Your task to perform on an android device: Go to accessibility settings Image 0: 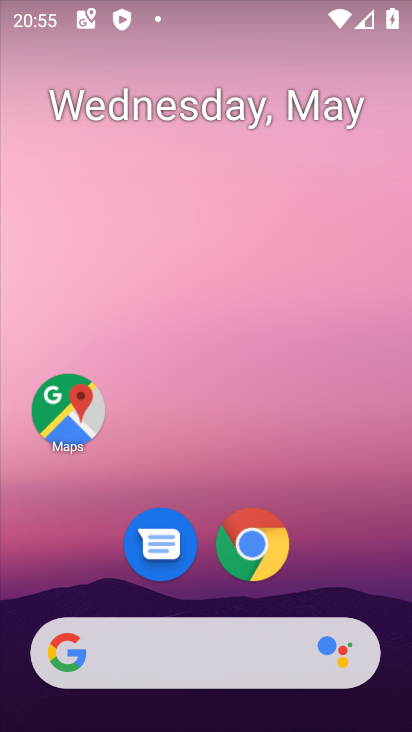
Step 0: drag from (206, 587) to (253, 20)
Your task to perform on an android device: Go to accessibility settings Image 1: 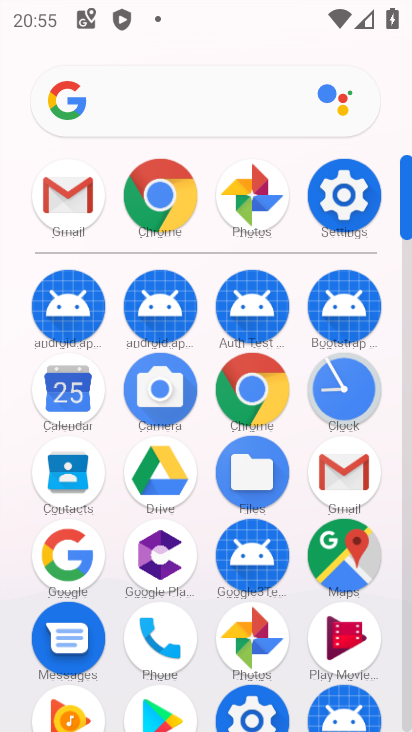
Step 1: click (333, 198)
Your task to perform on an android device: Go to accessibility settings Image 2: 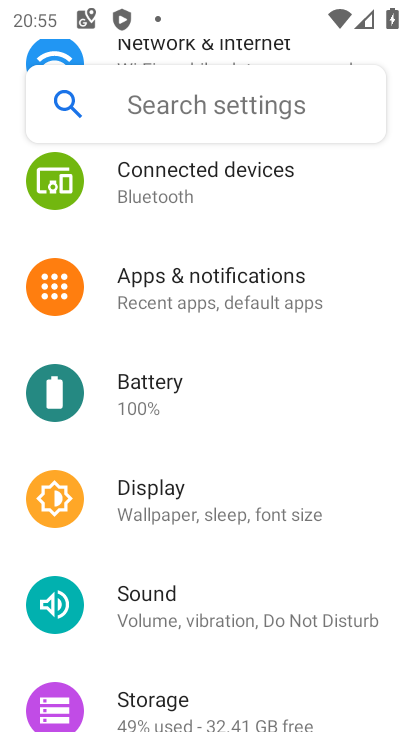
Step 2: drag from (120, 654) to (328, 170)
Your task to perform on an android device: Go to accessibility settings Image 3: 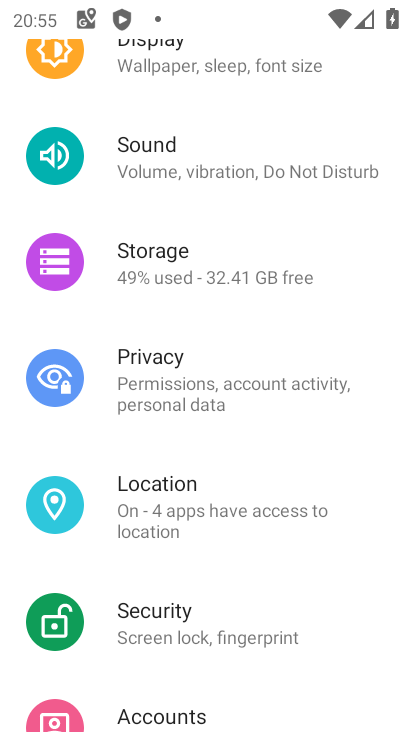
Step 3: drag from (122, 666) to (318, 143)
Your task to perform on an android device: Go to accessibility settings Image 4: 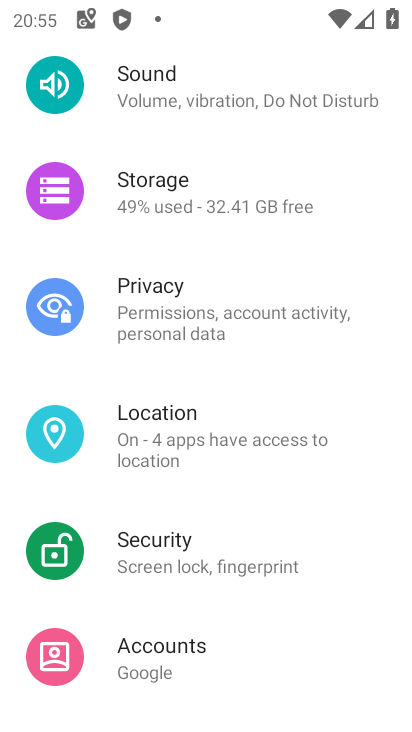
Step 4: drag from (94, 628) to (233, 172)
Your task to perform on an android device: Go to accessibility settings Image 5: 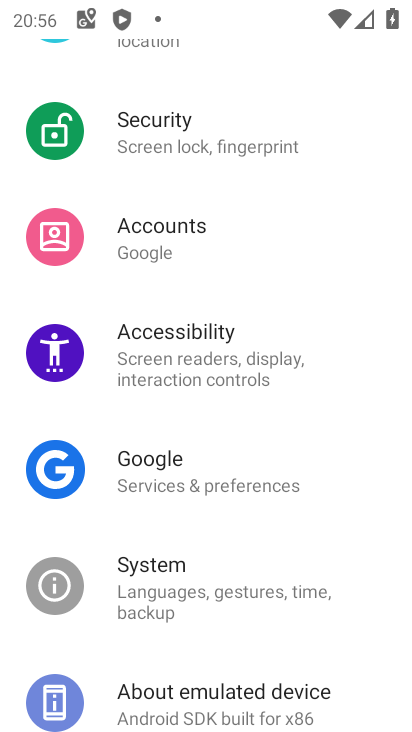
Step 5: click (169, 365)
Your task to perform on an android device: Go to accessibility settings Image 6: 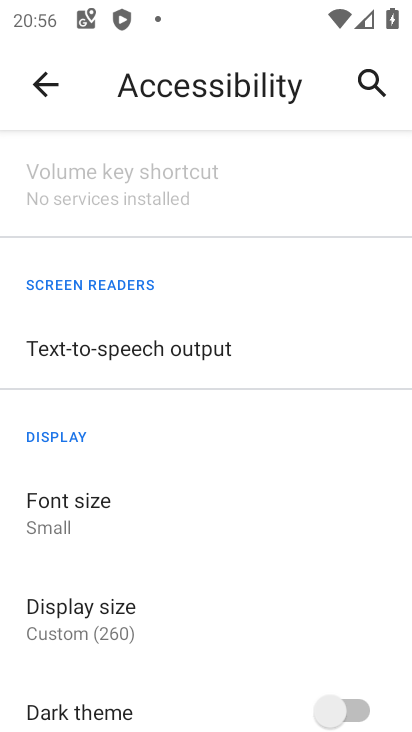
Step 6: task complete